Your task to perform on an android device: all mails in gmail Image 0: 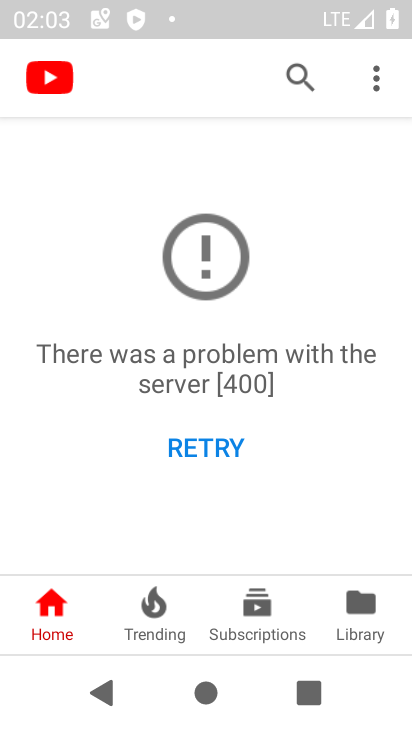
Step 0: press home button
Your task to perform on an android device: all mails in gmail Image 1: 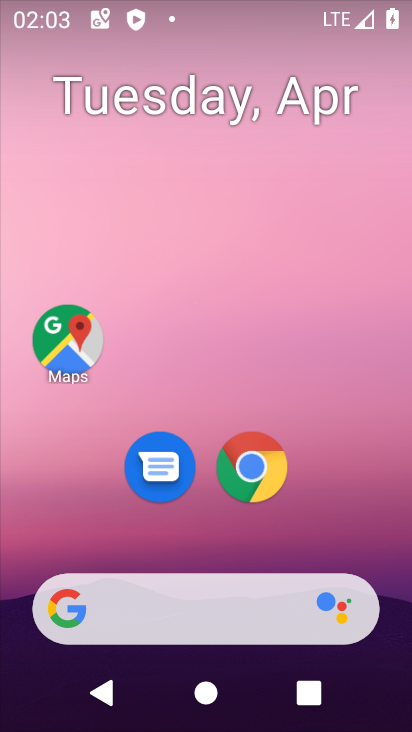
Step 1: drag from (383, 541) to (371, 154)
Your task to perform on an android device: all mails in gmail Image 2: 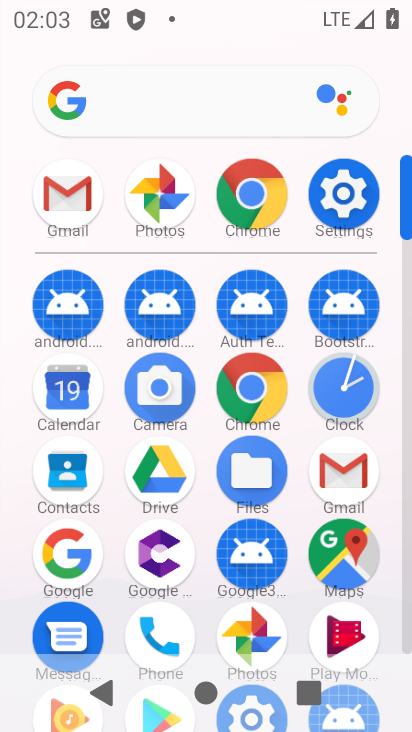
Step 2: click (327, 471)
Your task to perform on an android device: all mails in gmail Image 3: 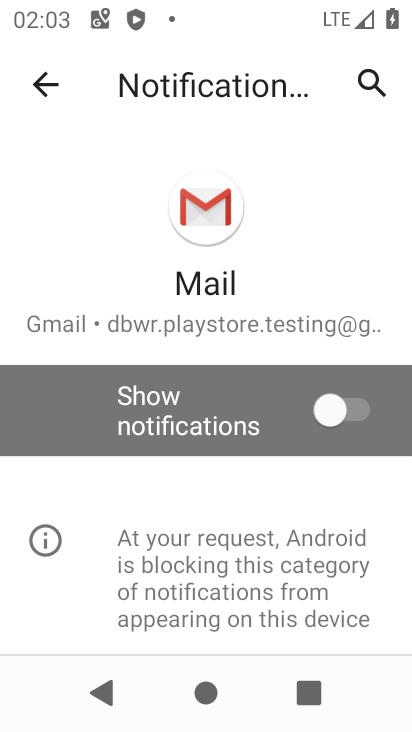
Step 3: click (47, 90)
Your task to perform on an android device: all mails in gmail Image 4: 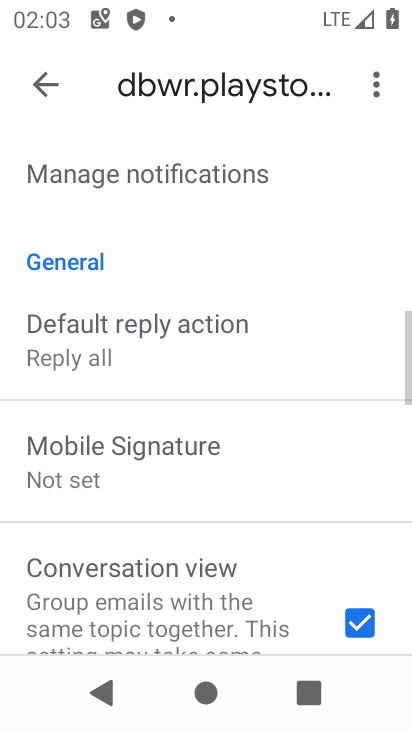
Step 4: click (47, 90)
Your task to perform on an android device: all mails in gmail Image 5: 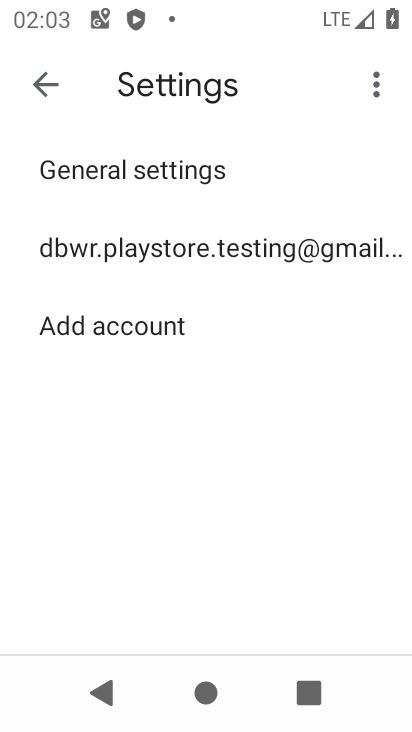
Step 5: click (46, 90)
Your task to perform on an android device: all mails in gmail Image 6: 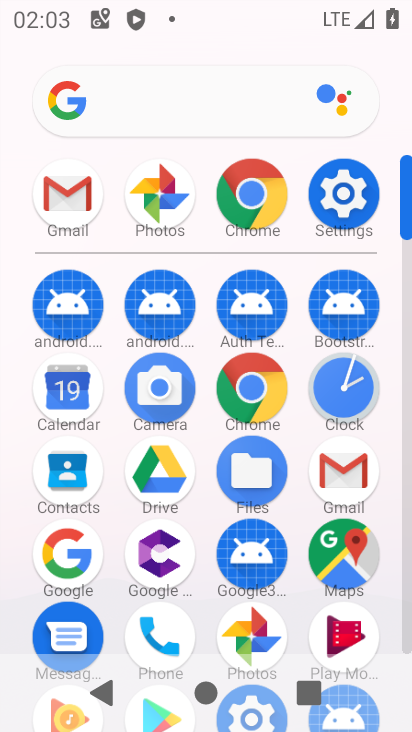
Step 6: click (363, 474)
Your task to perform on an android device: all mails in gmail Image 7: 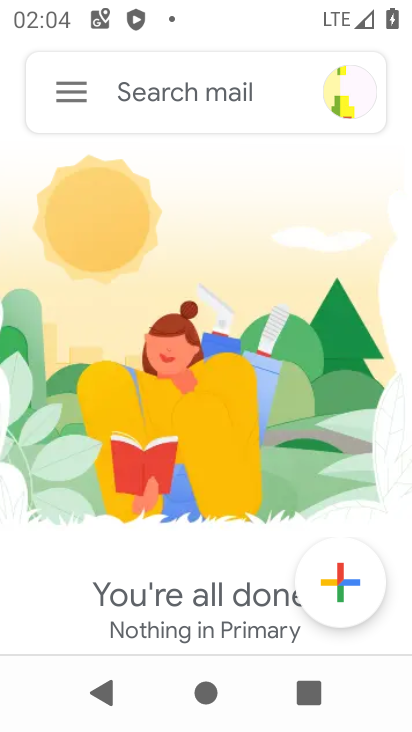
Step 7: click (72, 94)
Your task to perform on an android device: all mails in gmail Image 8: 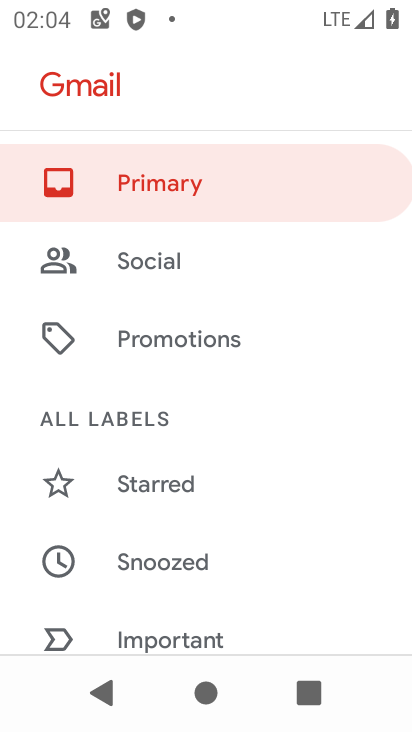
Step 8: drag from (292, 520) to (299, 310)
Your task to perform on an android device: all mails in gmail Image 9: 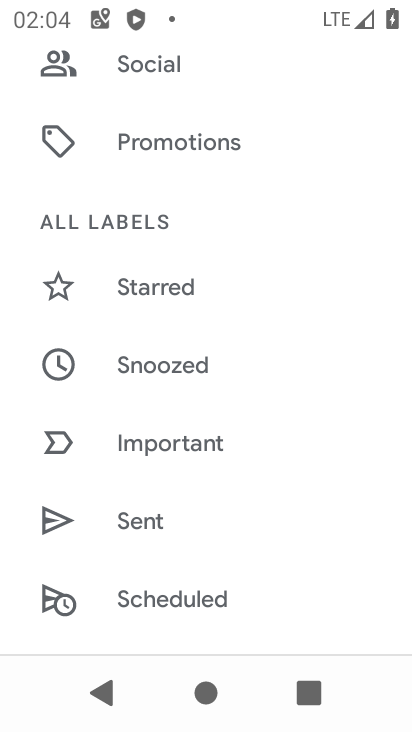
Step 9: drag from (317, 550) to (318, 312)
Your task to perform on an android device: all mails in gmail Image 10: 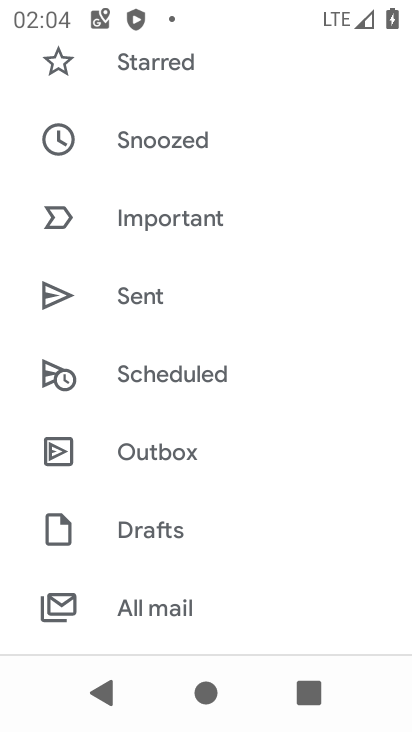
Step 10: drag from (305, 553) to (297, 351)
Your task to perform on an android device: all mails in gmail Image 11: 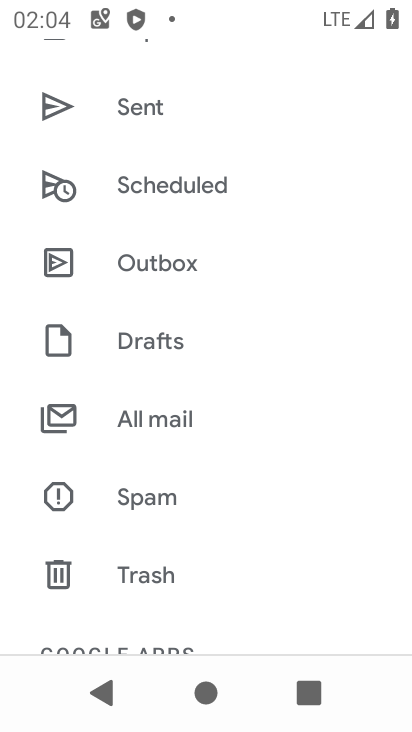
Step 11: click (145, 414)
Your task to perform on an android device: all mails in gmail Image 12: 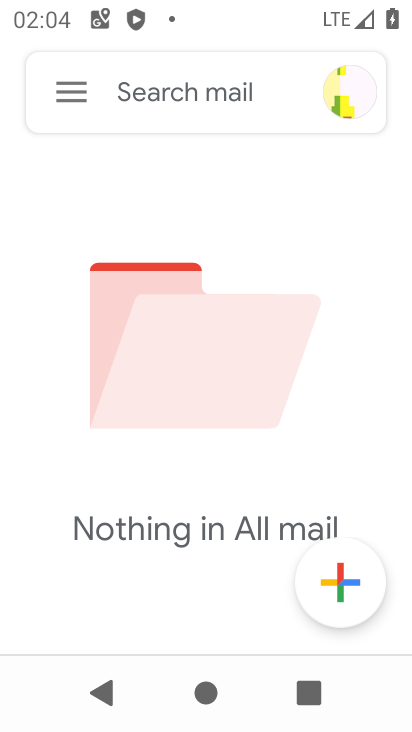
Step 12: task complete